Your task to perform on an android device: Open internet settings Image 0: 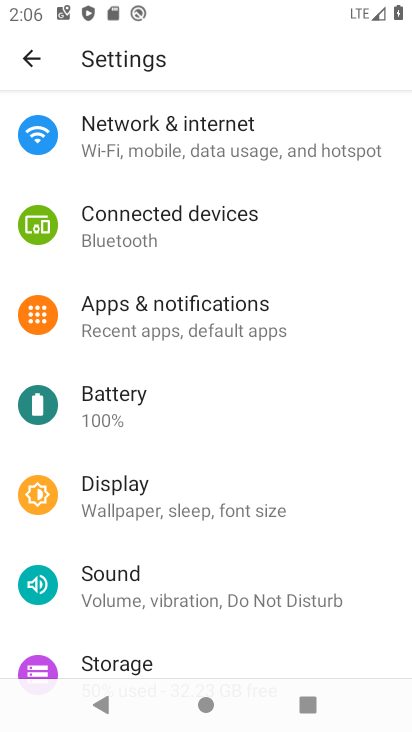
Step 0: press home button
Your task to perform on an android device: Open internet settings Image 1: 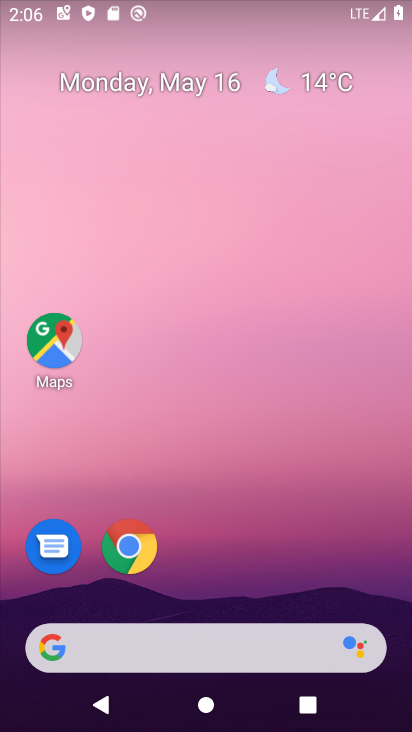
Step 1: drag from (276, 570) to (321, 262)
Your task to perform on an android device: Open internet settings Image 2: 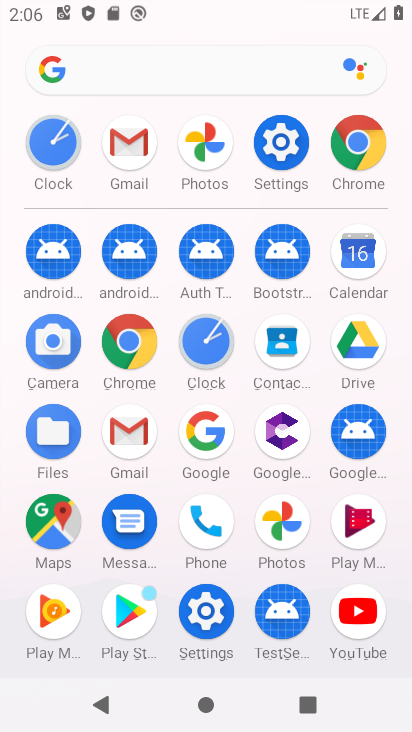
Step 2: click (285, 157)
Your task to perform on an android device: Open internet settings Image 3: 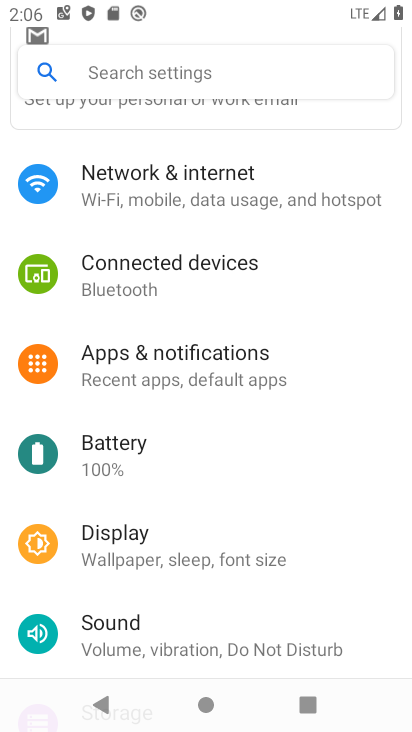
Step 3: click (178, 200)
Your task to perform on an android device: Open internet settings Image 4: 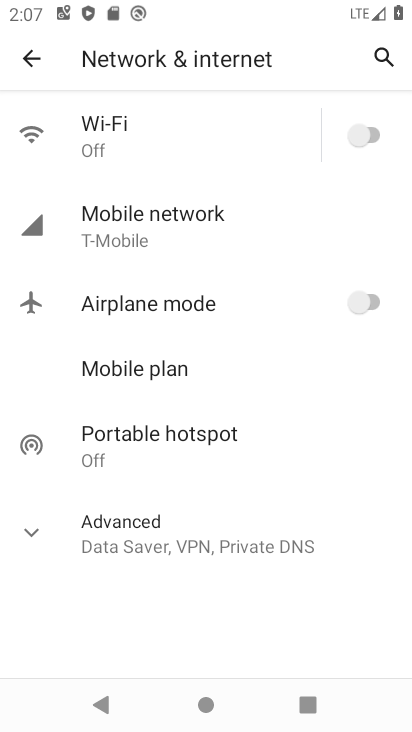
Step 4: task complete